Your task to perform on an android device: see creations saved in the google photos Image 0: 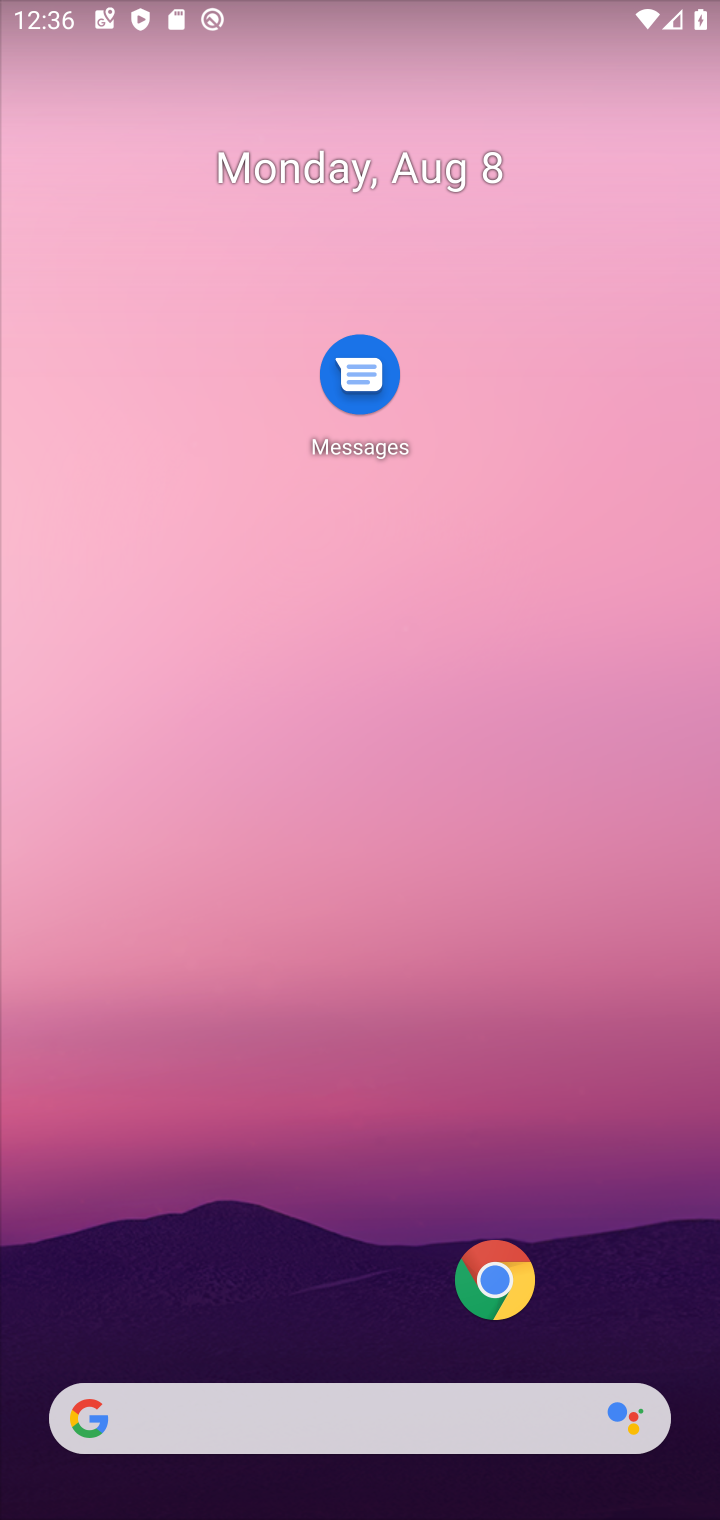
Step 0: click (308, 916)
Your task to perform on an android device: see creations saved in the google photos Image 1: 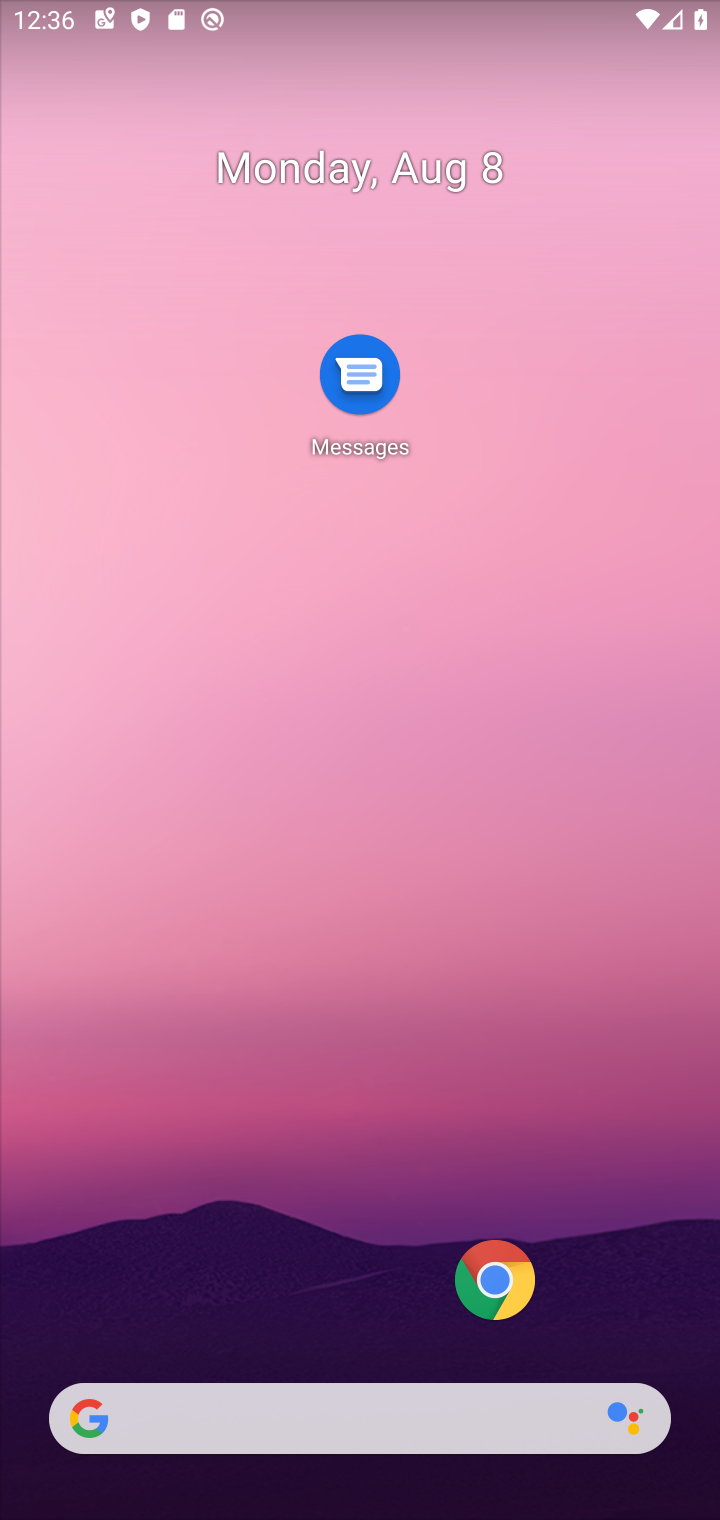
Step 1: drag from (230, 1261) to (453, 66)
Your task to perform on an android device: see creations saved in the google photos Image 2: 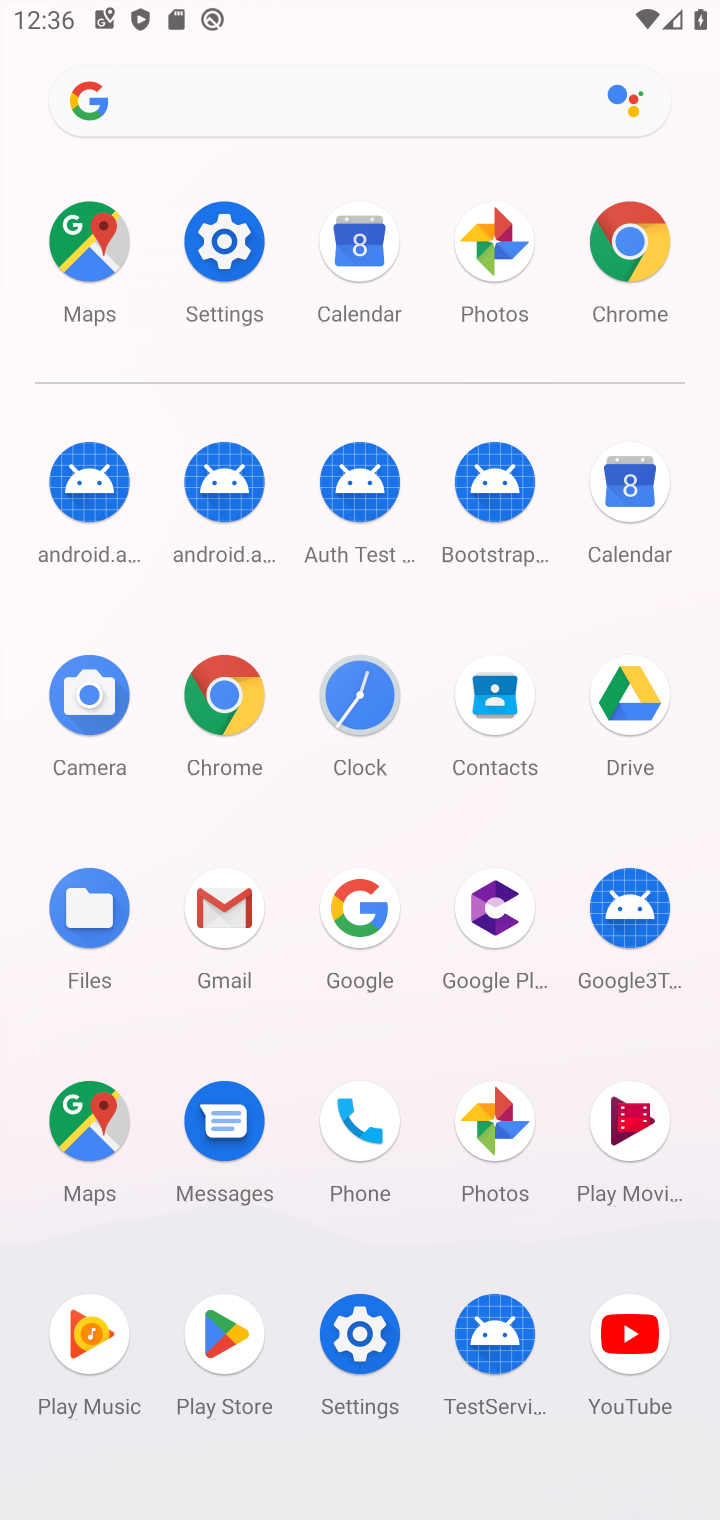
Step 2: click (497, 1115)
Your task to perform on an android device: see creations saved in the google photos Image 3: 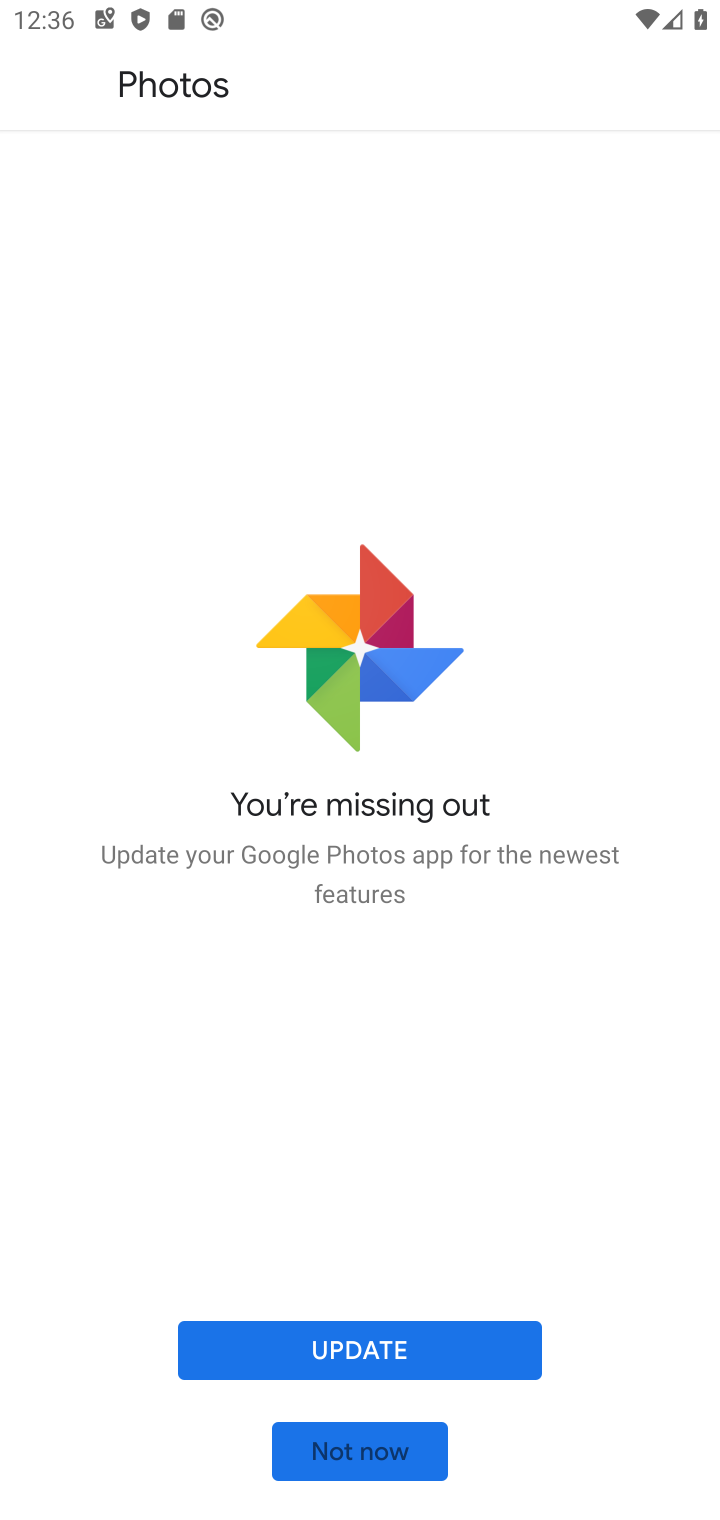
Step 3: click (380, 1463)
Your task to perform on an android device: see creations saved in the google photos Image 4: 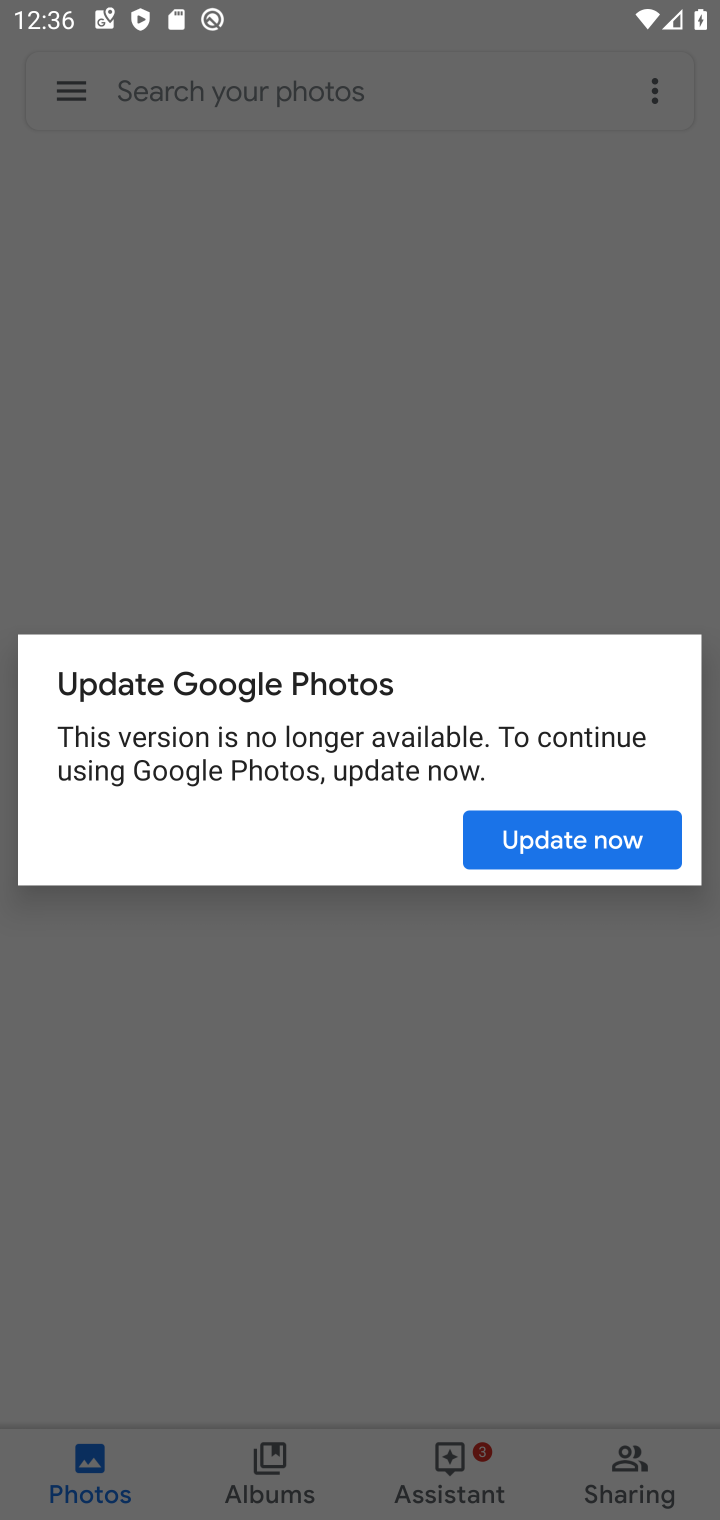
Step 4: click (567, 831)
Your task to perform on an android device: see creations saved in the google photos Image 5: 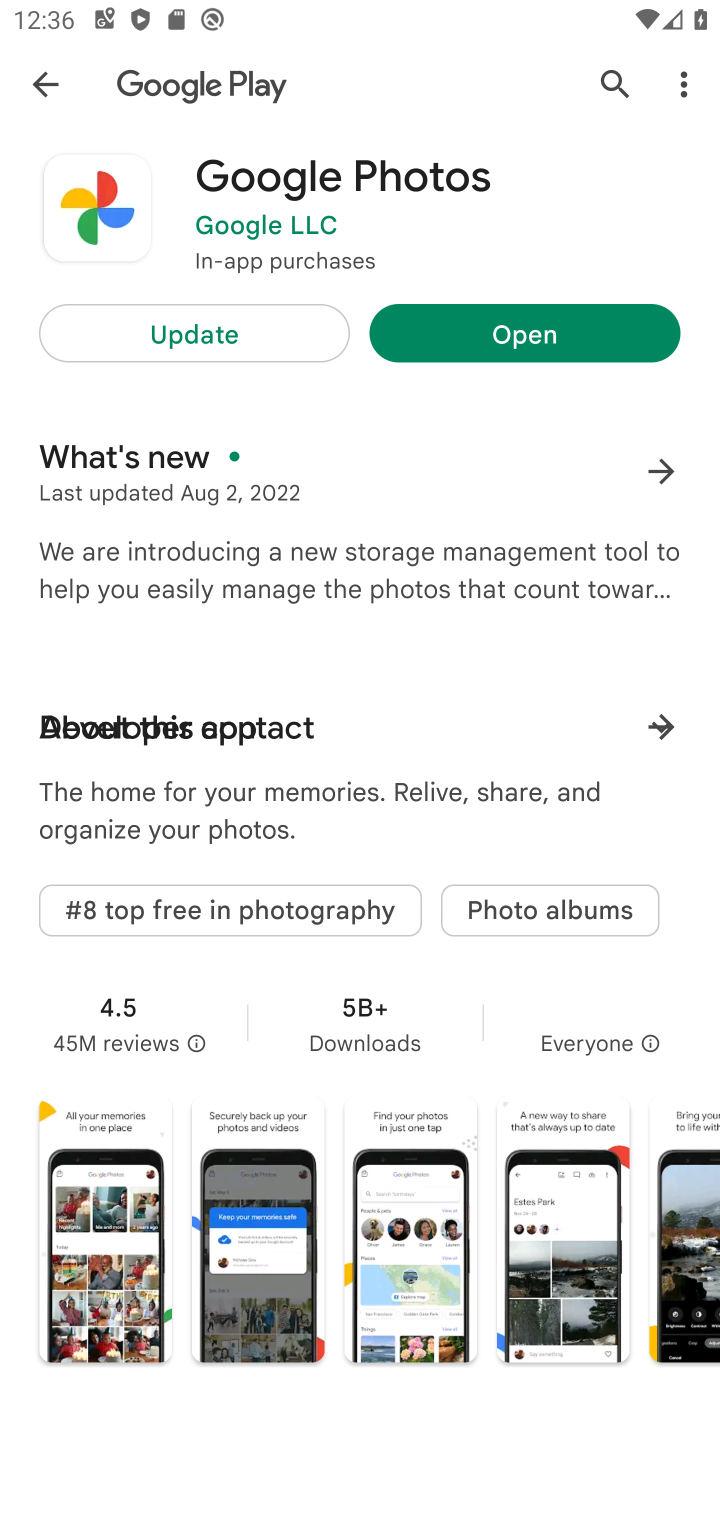
Step 5: click (499, 326)
Your task to perform on an android device: see creations saved in the google photos Image 6: 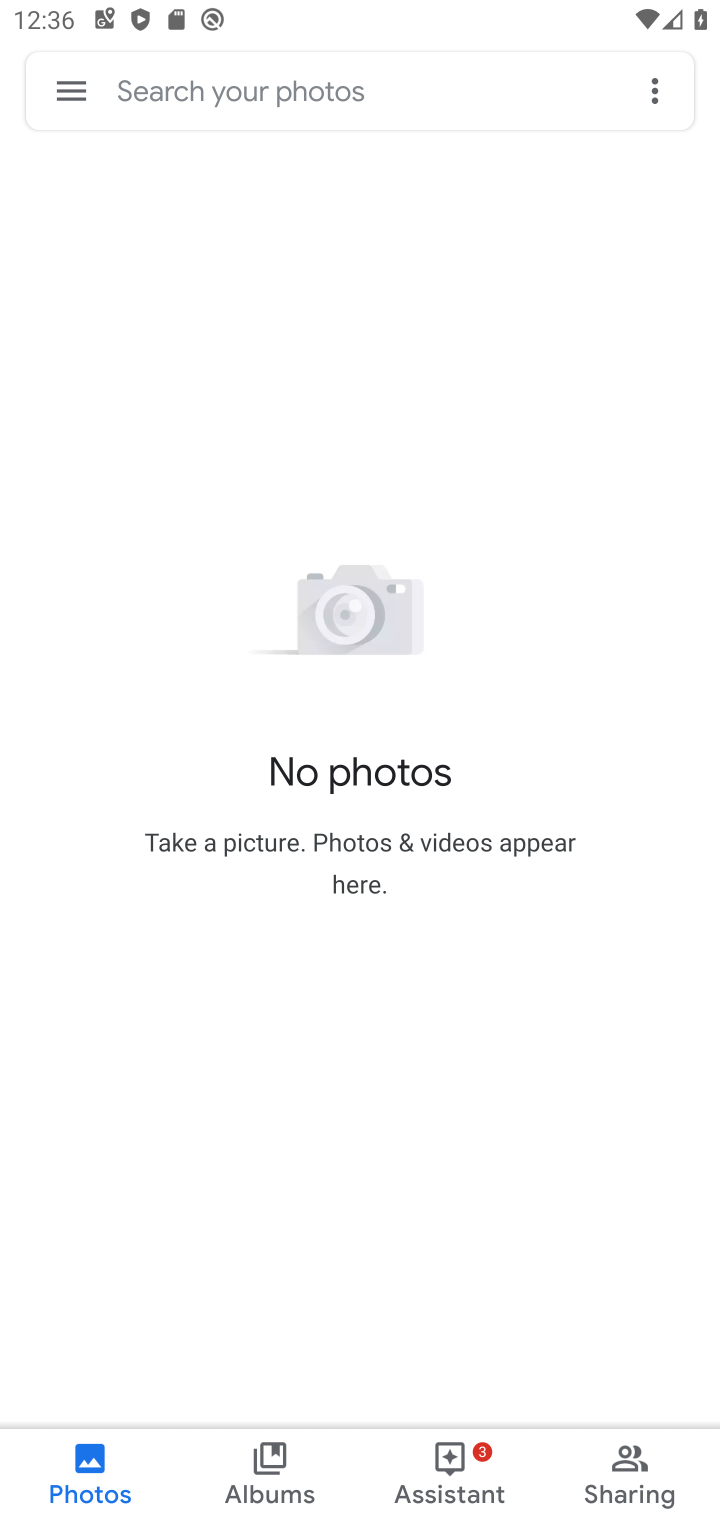
Step 6: click (51, 87)
Your task to perform on an android device: see creations saved in the google photos Image 7: 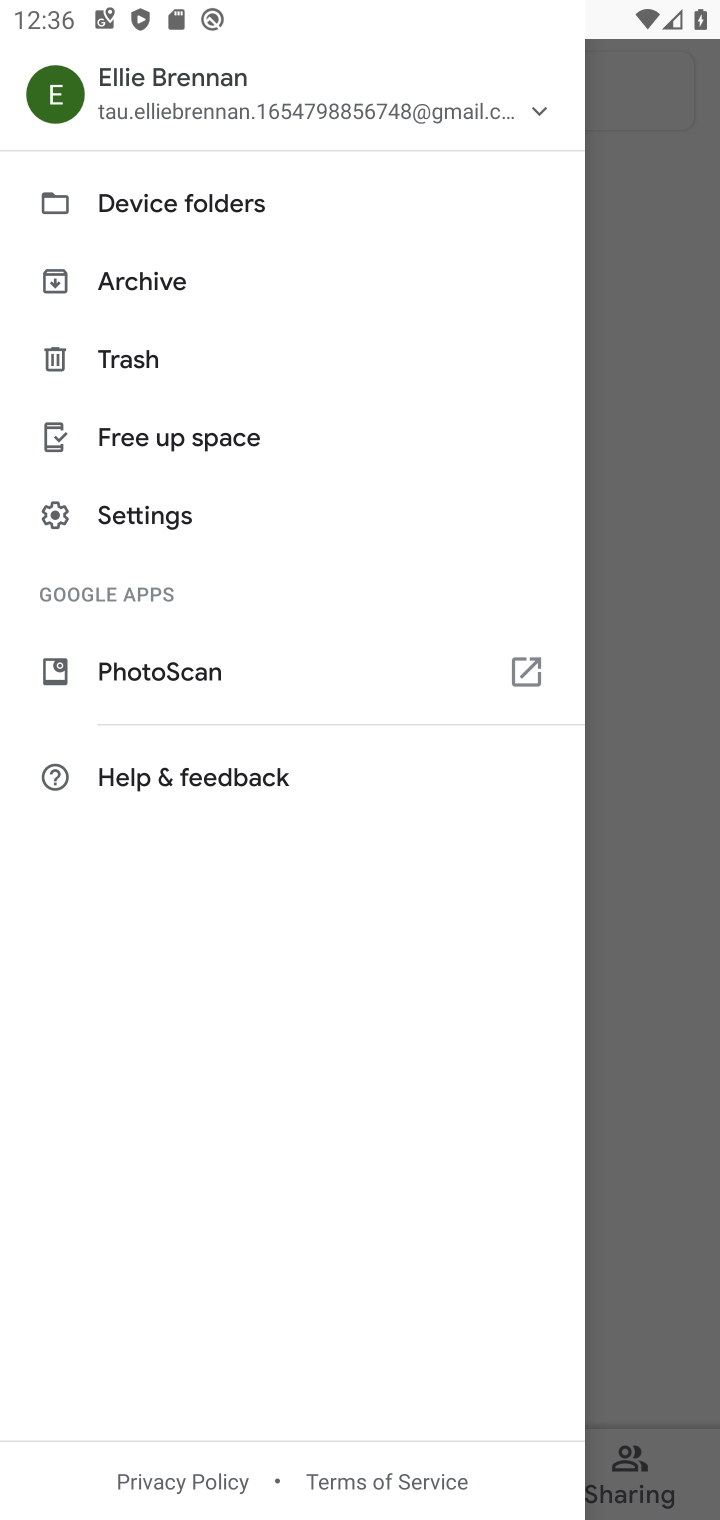
Step 7: click (142, 281)
Your task to perform on an android device: see creations saved in the google photos Image 8: 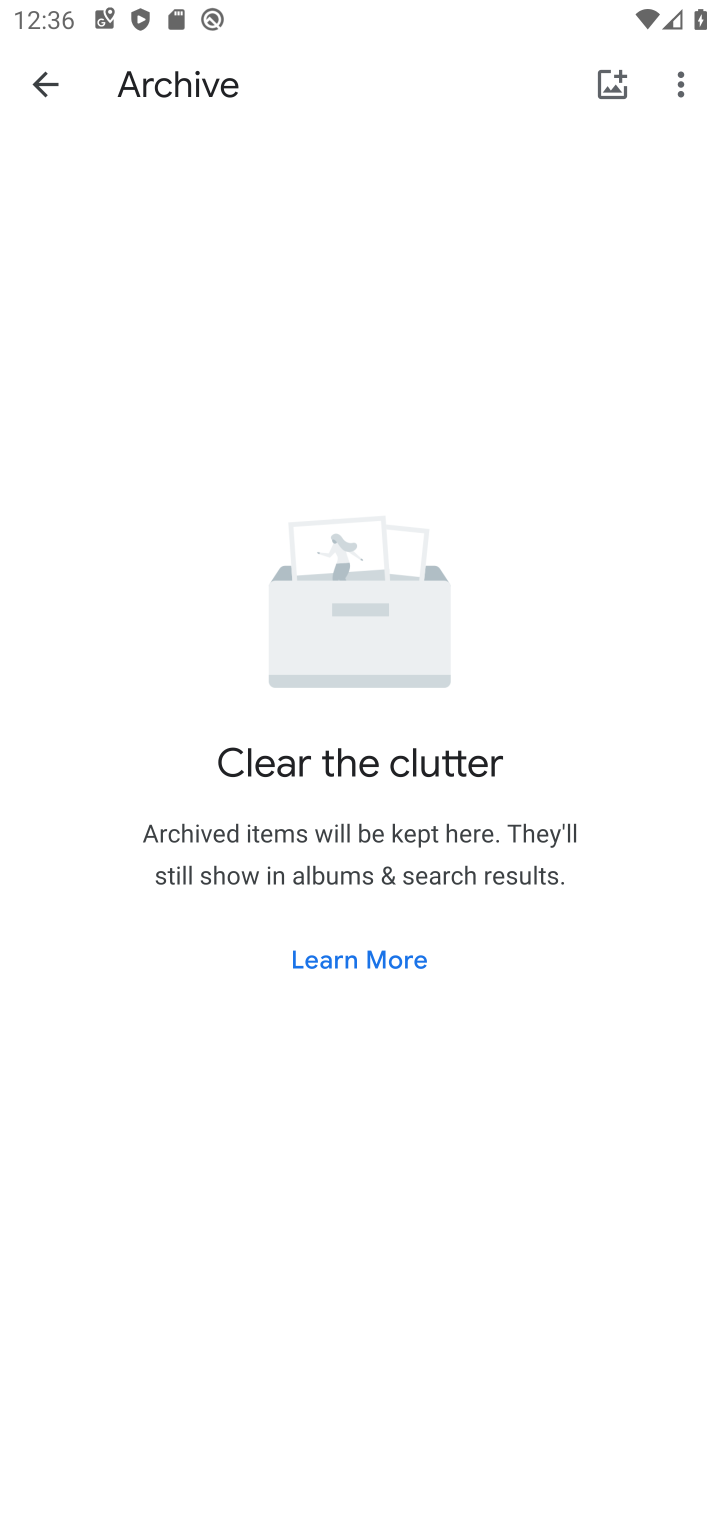
Step 8: task complete